Your task to perform on an android device: Go to Maps Image 0: 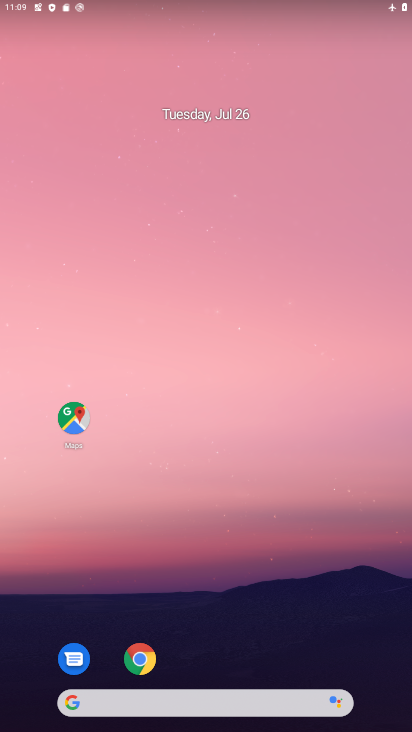
Step 0: press home button
Your task to perform on an android device: Go to Maps Image 1: 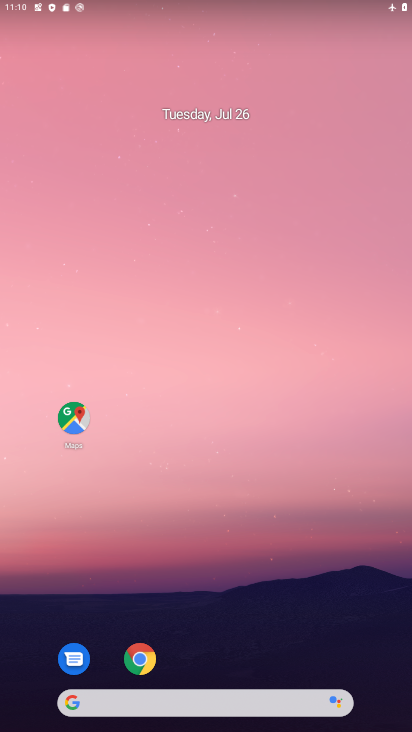
Step 1: click (73, 419)
Your task to perform on an android device: Go to Maps Image 2: 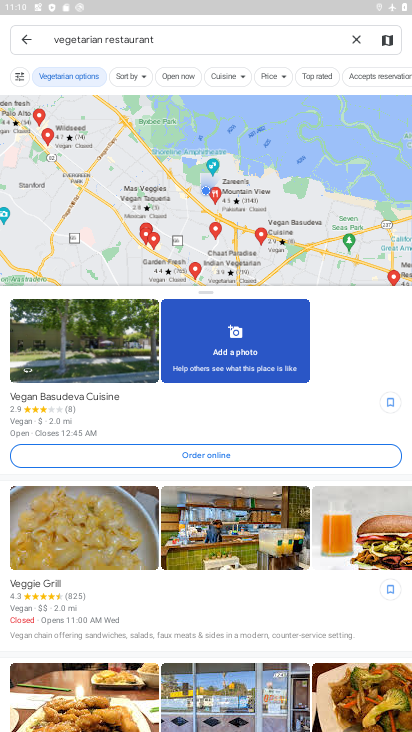
Step 2: click (356, 38)
Your task to perform on an android device: Go to Maps Image 3: 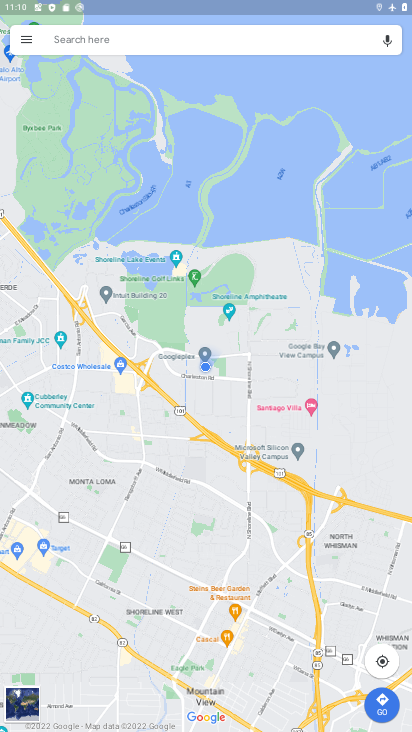
Step 3: task complete